Your task to perform on an android device: check google app version Image 0: 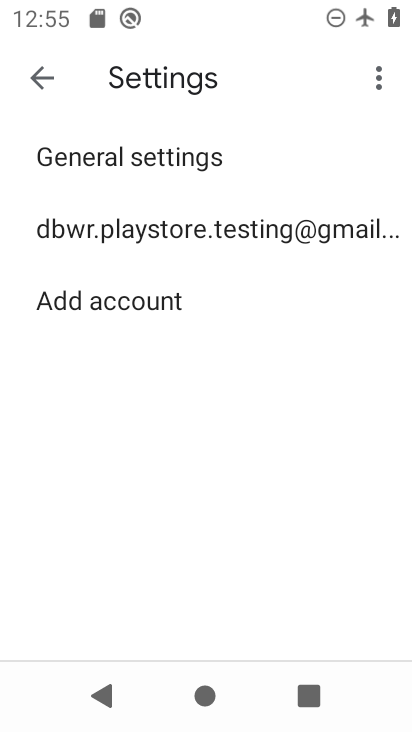
Step 0: press home button
Your task to perform on an android device: check google app version Image 1: 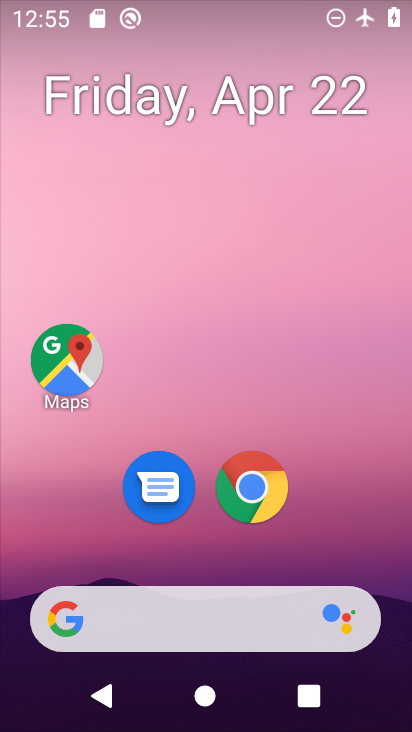
Step 1: drag from (150, 621) to (189, 258)
Your task to perform on an android device: check google app version Image 2: 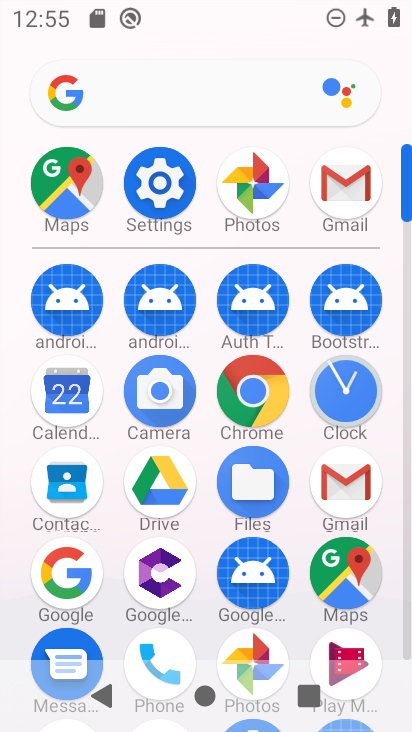
Step 2: click (60, 576)
Your task to perform on an android device: check google app version Image 3: 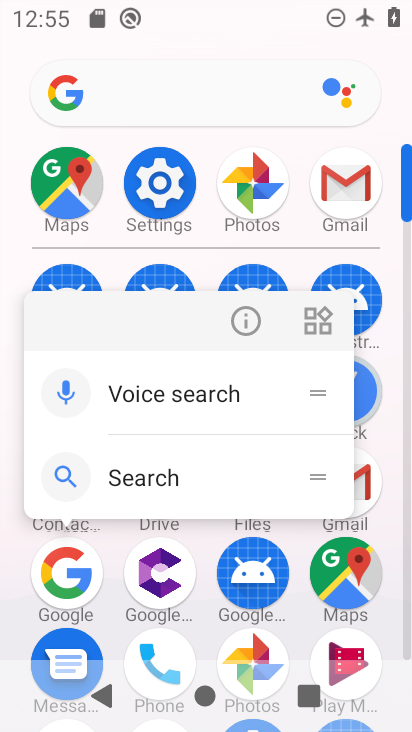
Step 3: click (134, 526)
Your task to perform on an android device: check google app version Image 4: 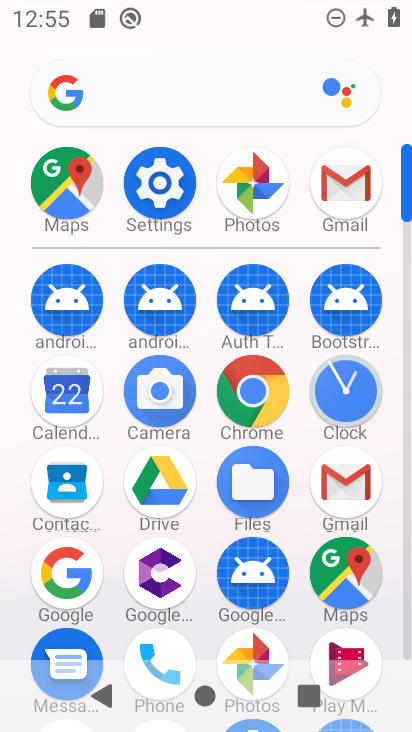
Step 4: click (71, 574)
Your task to perform on an android device: check google app version Image 5: 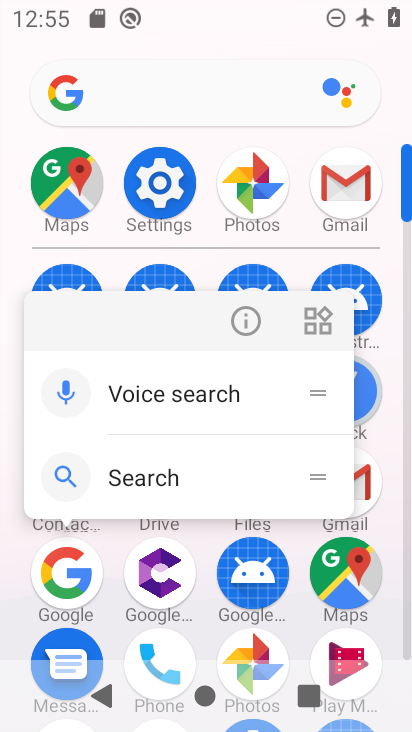
Step 5: click (73, 574)
Your task to perform on an android device: check google app version Image 6: 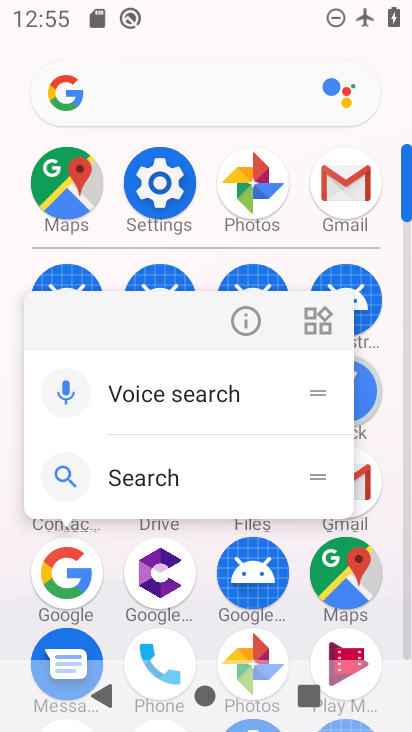
Step 6: click (64, 579)
Your task to perform on an android device: check google app version Image 7: 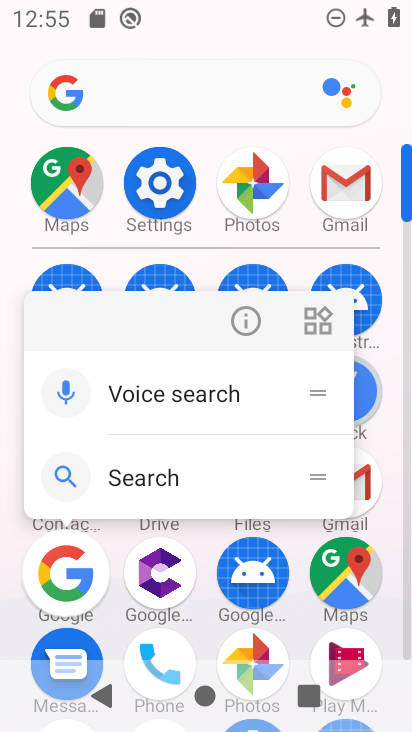
Step 7: click (66, 570)
Your task to perform on an android device: check google app version Image 8: 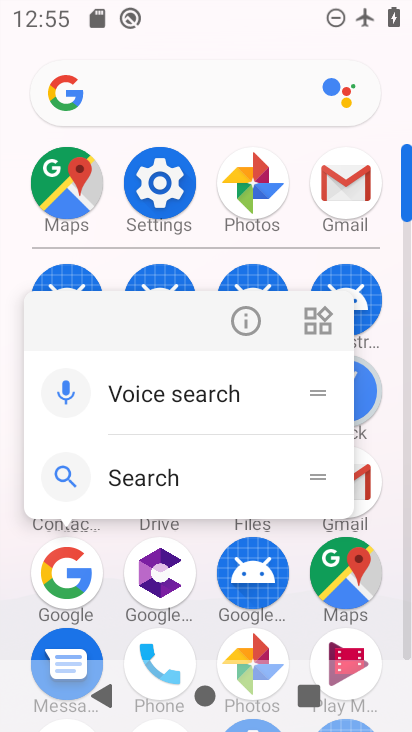
Step 8: click (74, 573)
Your task to perform on an android device: check google app version Image 9: 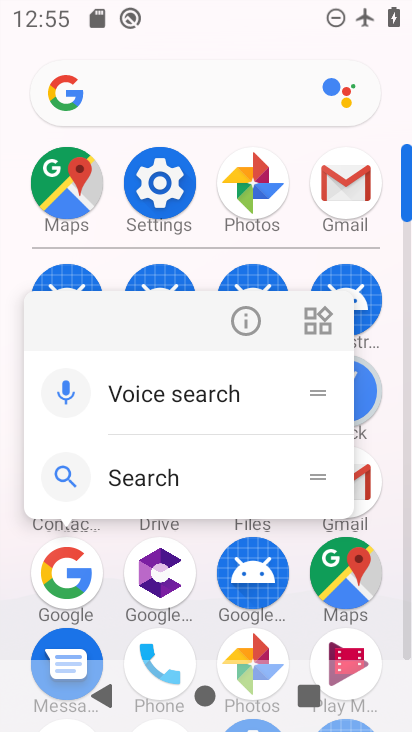
Step 9: click (81, 575)
Your task to perform on an android device: check google app version Image 10: 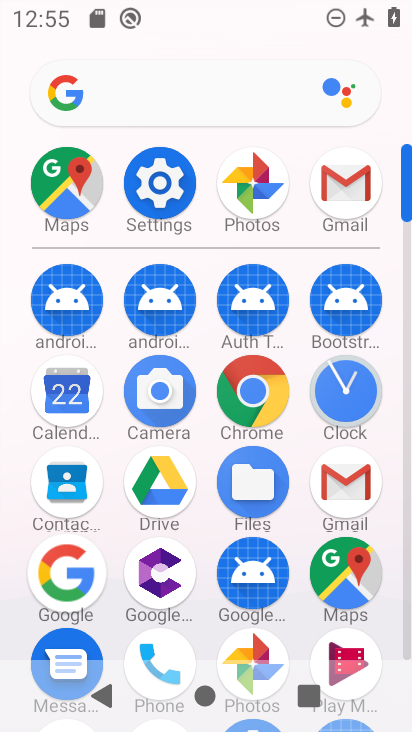
Step 10: click (55, 575)
Your task to perform on an android device: check google app version Image 11: 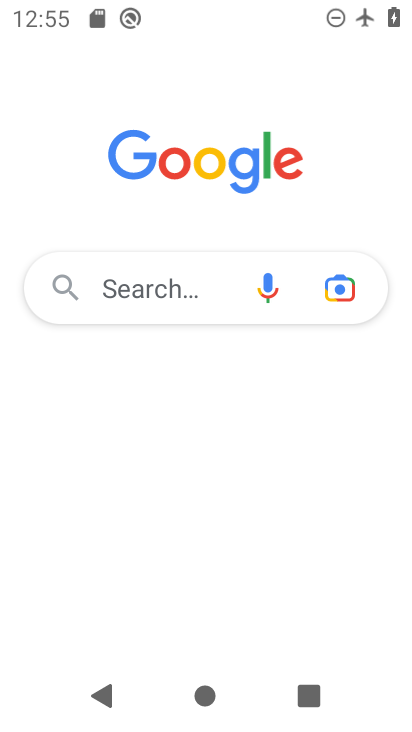
Step 11: click (56, 575)
Your task to perform on an android device: check google app version Image 12: 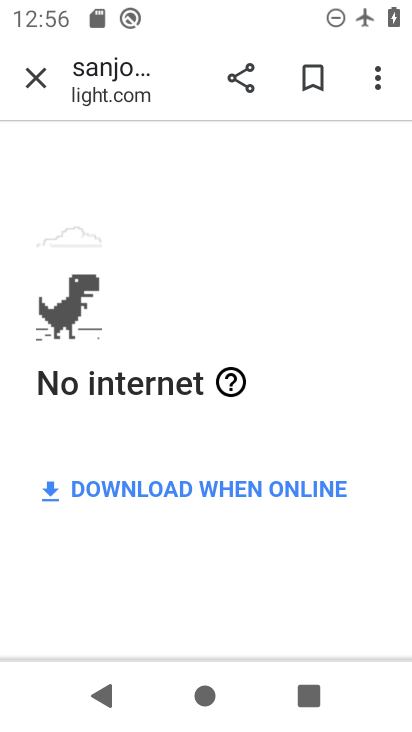
Step 12: click (50, 86)
Your task to perform on an android device: check google app version Image 13: 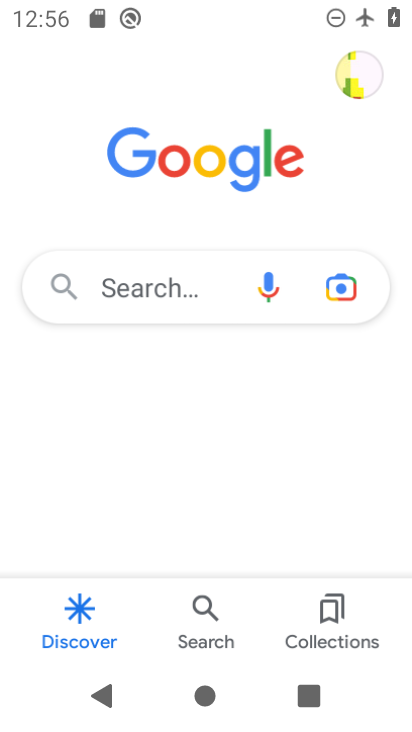
Step 13: click (361, 69)
Your task to perform on an android device: check google app version Image 14: 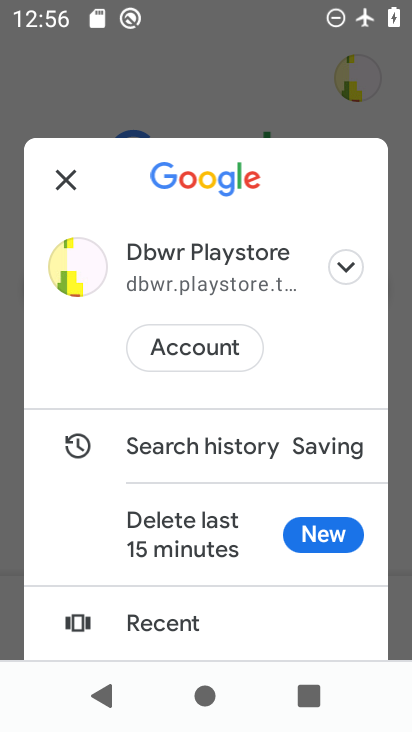
Step 14: drag from (149, 618) to (280, 125)
Your task to perform on an android device: check google app version Image 15: 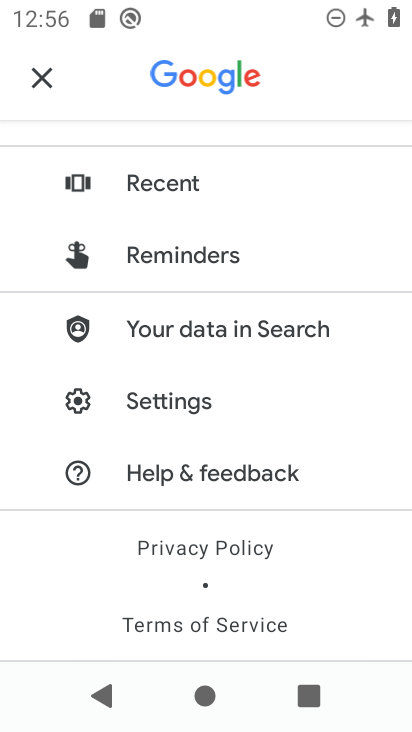
Step 15: click (159, 402)
Your task to perform on an android device: check google app version Image 16: 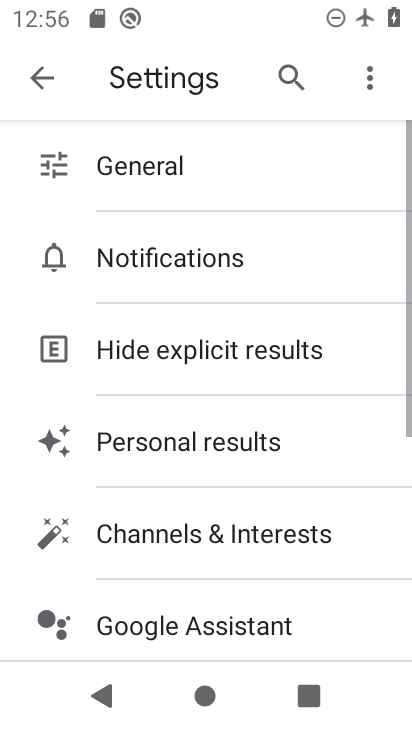
Step 16: drag from (192, 620) to (288, 111)
Your task to perform on an android device: check google app version Image 17: 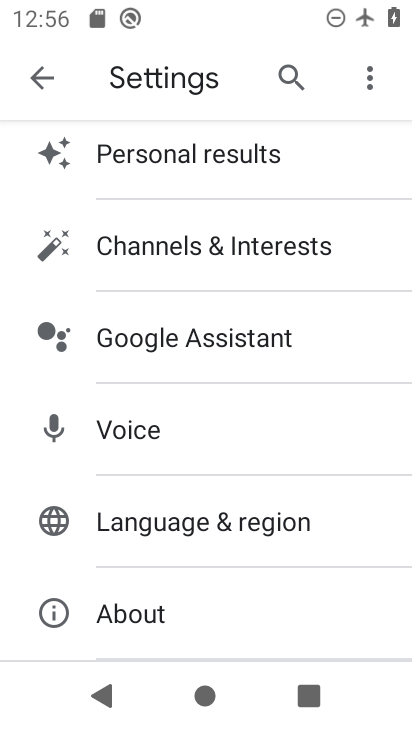
Step 17: click (188, 604)
Your task to perform on an android device: check google app version Image 18: 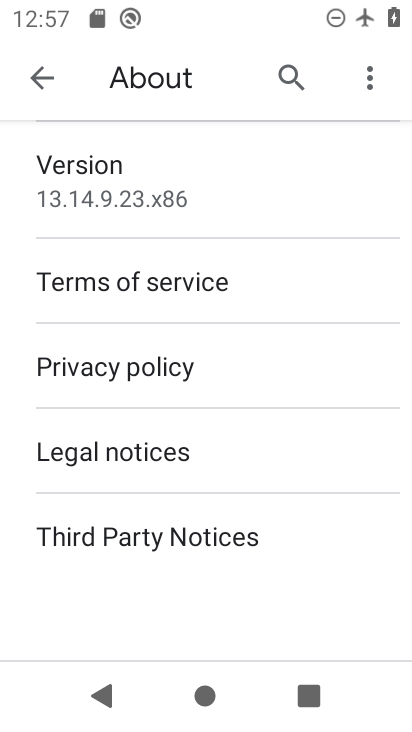
Step 18: task complete